Your task to perform on an android device: move a message to another label in the gmail app Image 0: 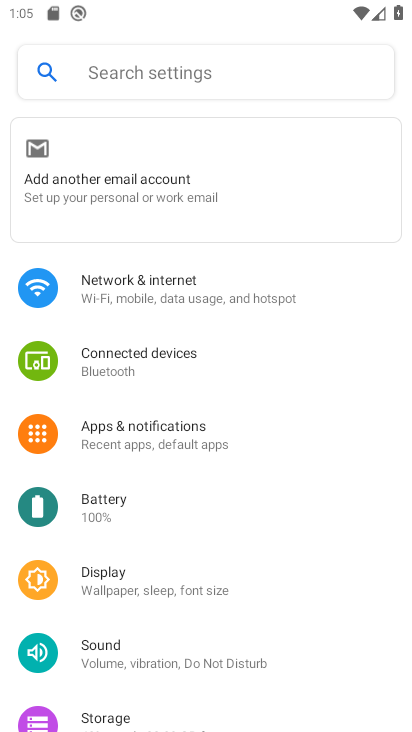
Step 0: press home button
Your task to perform on an android device: move a message to another label in the gmail app Image 1: 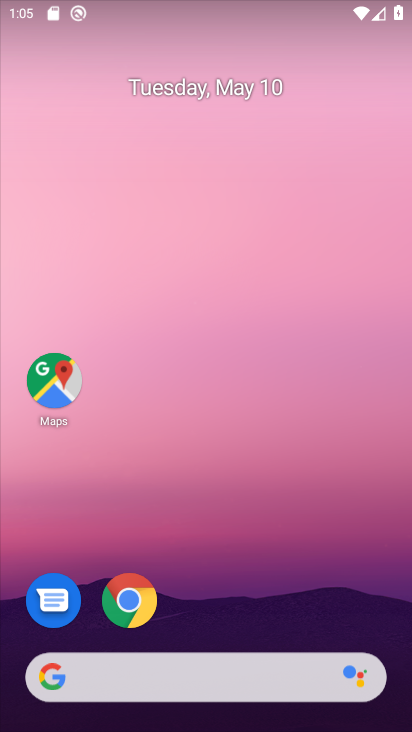
Step 1: drag from (219, 609) to (211, 6)
Your task to perform on an android device: move a message to another label in the gmail app Image 2: 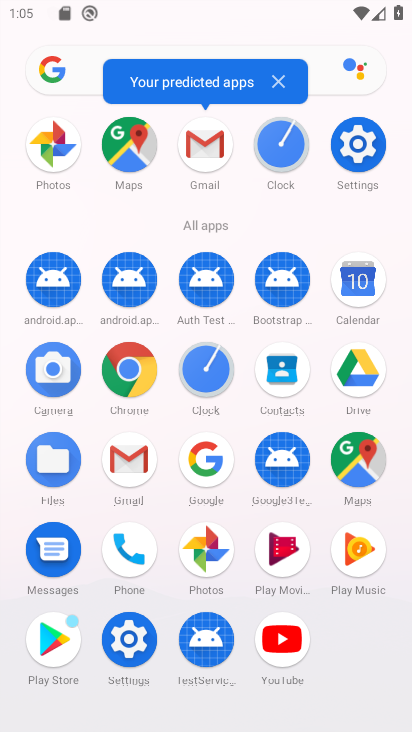
Step 2: click (202, 138)
Your task to perform on an android device: move a message to another label in the gmail app Image 3: 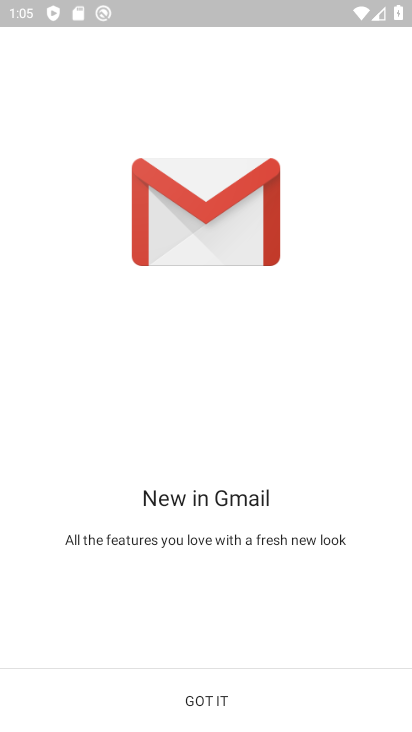
Step 3: click (215, 694)
Your task to perform on an android device: move a message to another label in the gmail app Image 4: 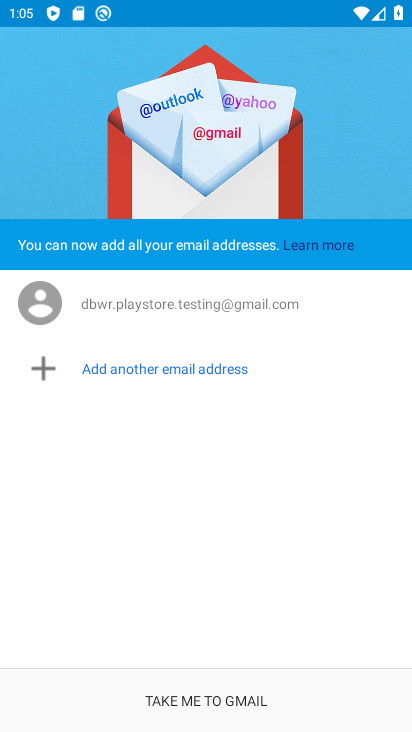
Step 4: click (207, 701)
Your task to perform on an android device: move a message to another label in the gmail app Image 5: 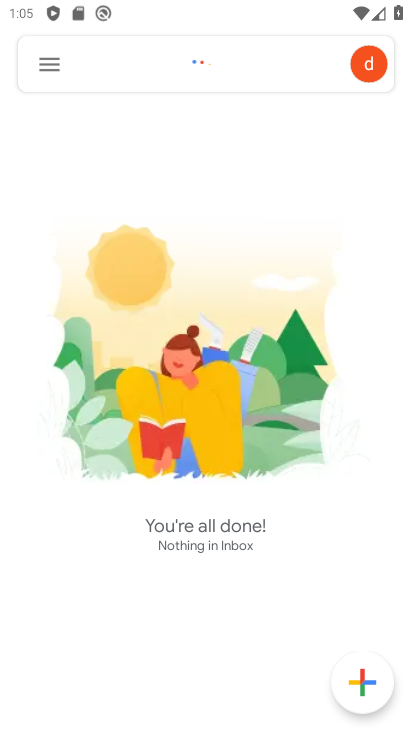
Step 5: click (44, 59)
Your task to perform on an android device: move a message to another label in the gmail app Image 6: 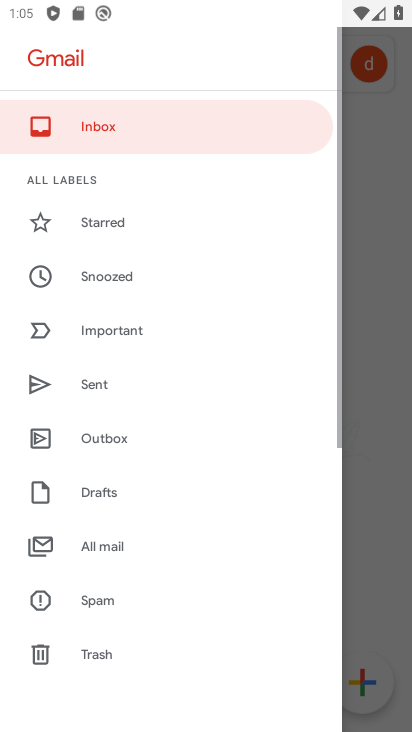
Step 6: drag from (147, 547) to (161, 304)
Your task to perform on an android device: move a message to another label in the gmail app Image 7: 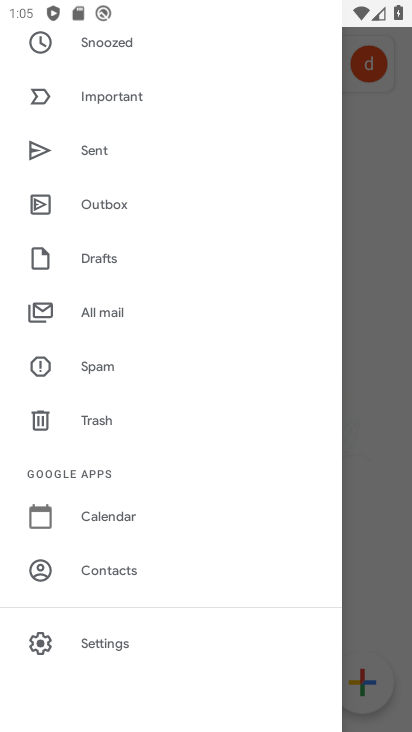
Step 7: click (88, 305)
Your task to perform on an android device: move a message to another label in the gmail app Image 8: 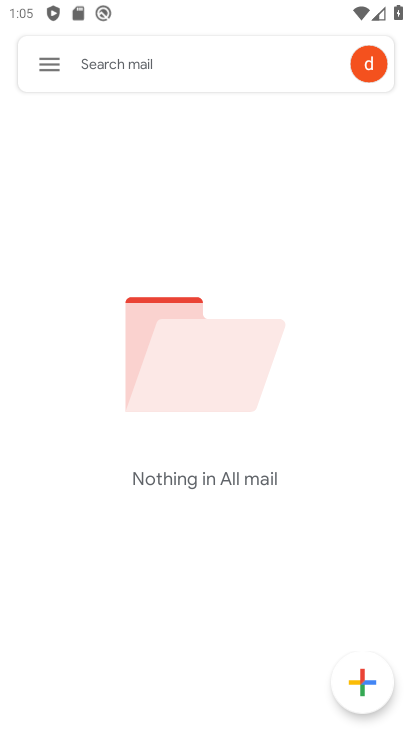
Step 8: task complete